Your task to perform on an android device: check the backup settings in the google photos Image 0: 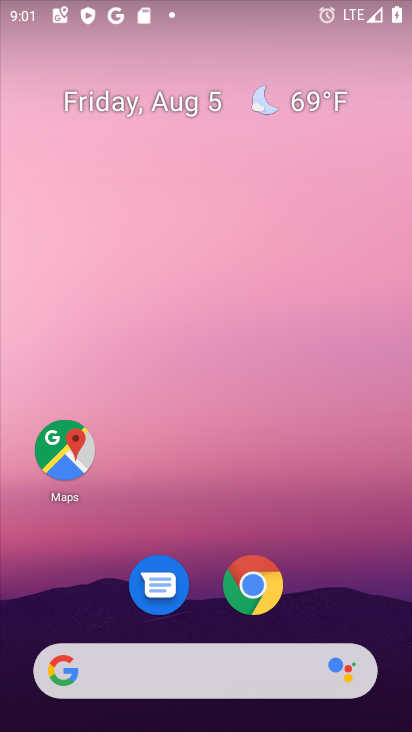
Step 0: drag from (226, 494) to (243, 7)
Your task to perform on an android device: check the backup settings in the google photos Image 1: 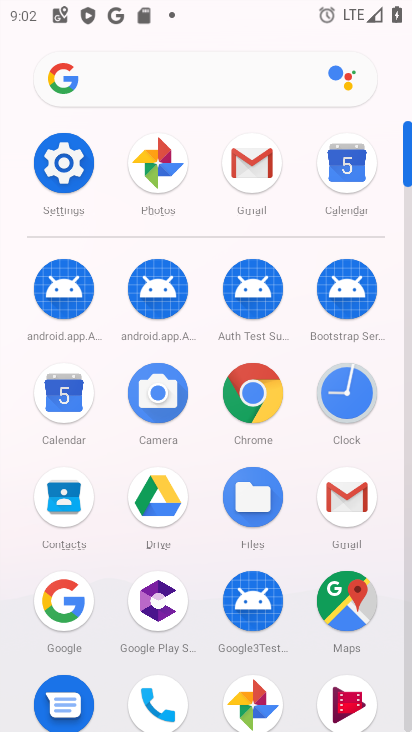
Step 1: click (169, 162)
Your task to perform on an android device: check the backup settings in the google photos Image 2: 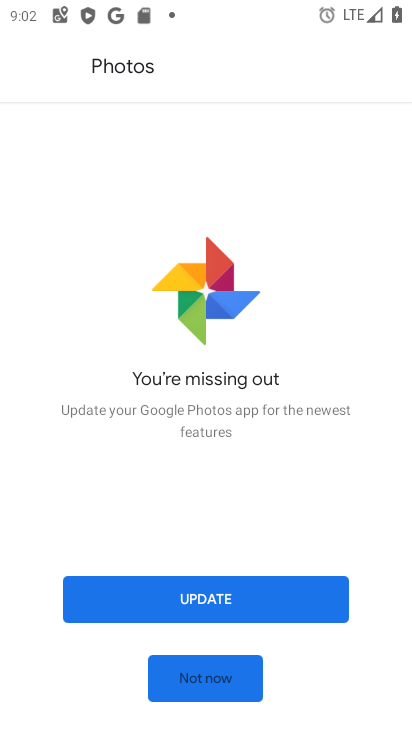
Step 2: click (172, 676)
Your task to perform on an android device: check the backup settings in the google photos Image 3: 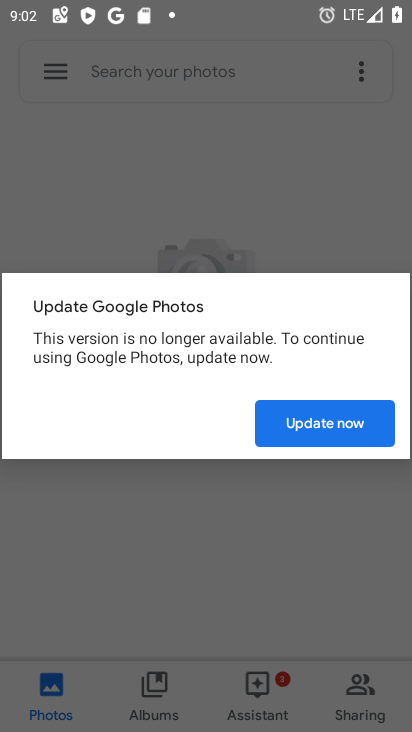
Step 3: click (347, 428)
Your task to perform on an android device: check the backup settings in the google photos Image 4: 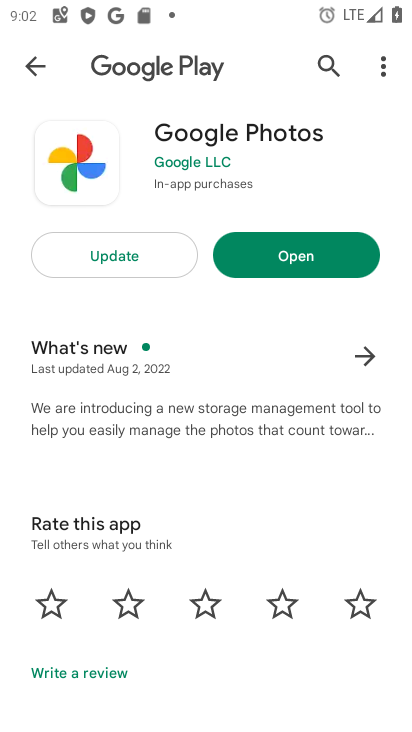
Step 4: click (384, 63)
Your task to perform on an android device: check the backup settings in the google photos Image 5: 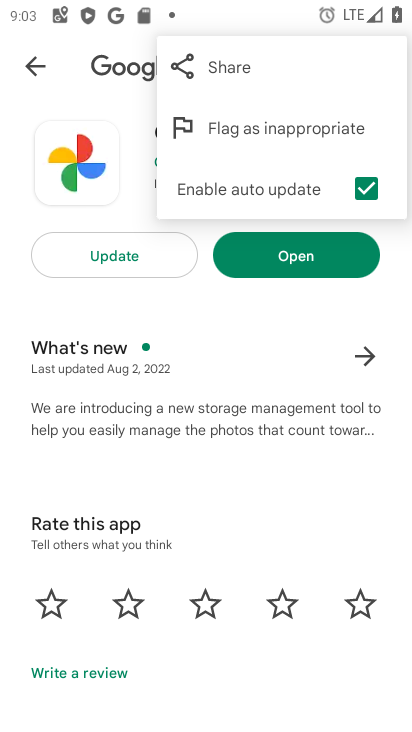
Step 5: click (356, 259)
Your task to perform on an android device: check the backup settings in the google photos Image 6: 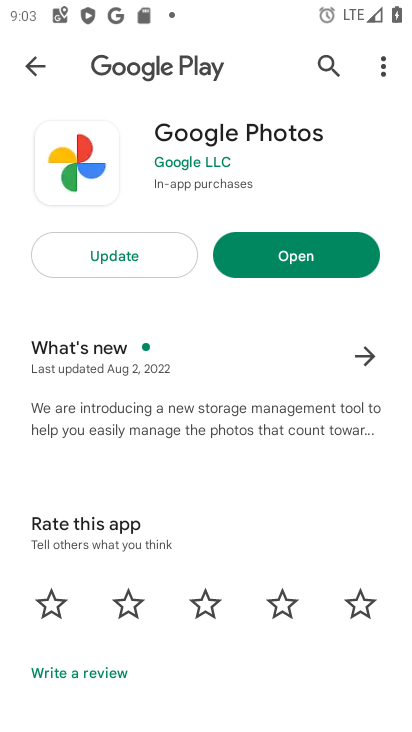
Step 6: click (356, 259)
Your task to perform on an android device: check the backup settings in the google photos Image 7: 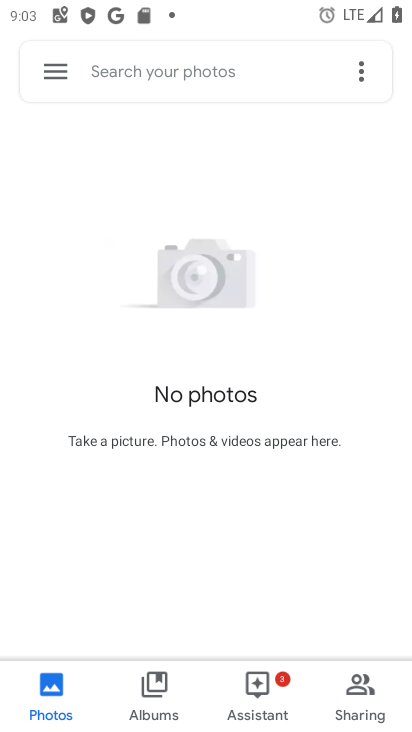
Step 7: click (58, 71)
Your task to perform on an android device: check the backup settings in the google photos Image 8: 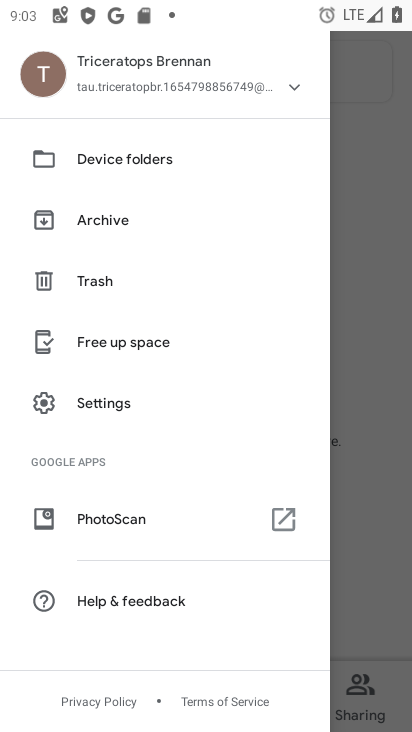
Step 8: click (124, 392)
Your task to perform on an android device: check the backup settings in the google photos Image 9: 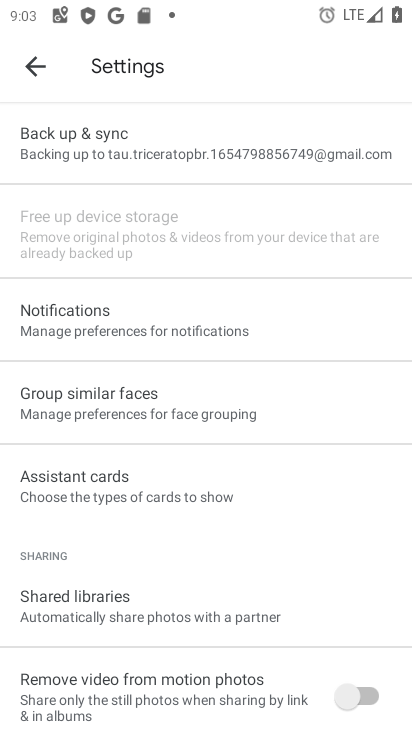
Step 9: click (215, 148)
Your task to perform on an android device: check the backup settings in the google photos Image 10: 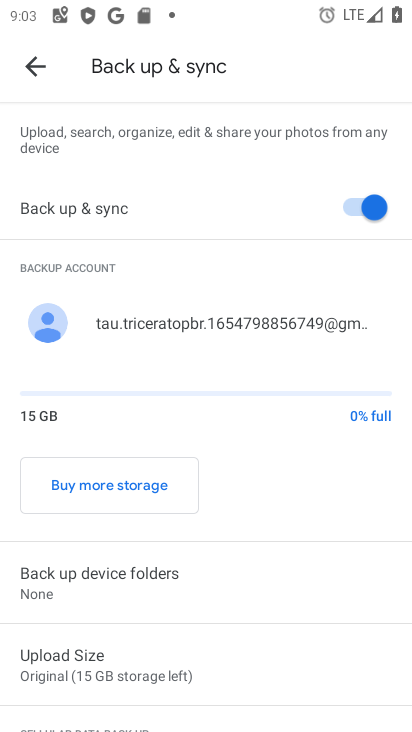
Step 10: task complete